Your task to perform on an android device: delete the emails in spam in the gmail app Image 0: 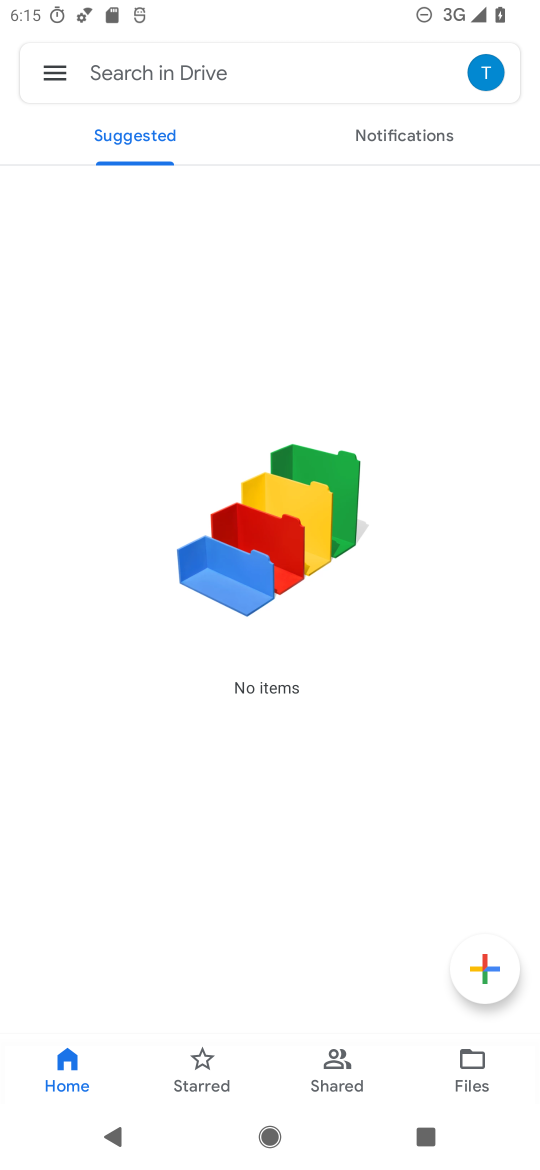
Step 0: press home button
Your task to perform on an android device: delete the emails in spam in the gmail app Image 1: 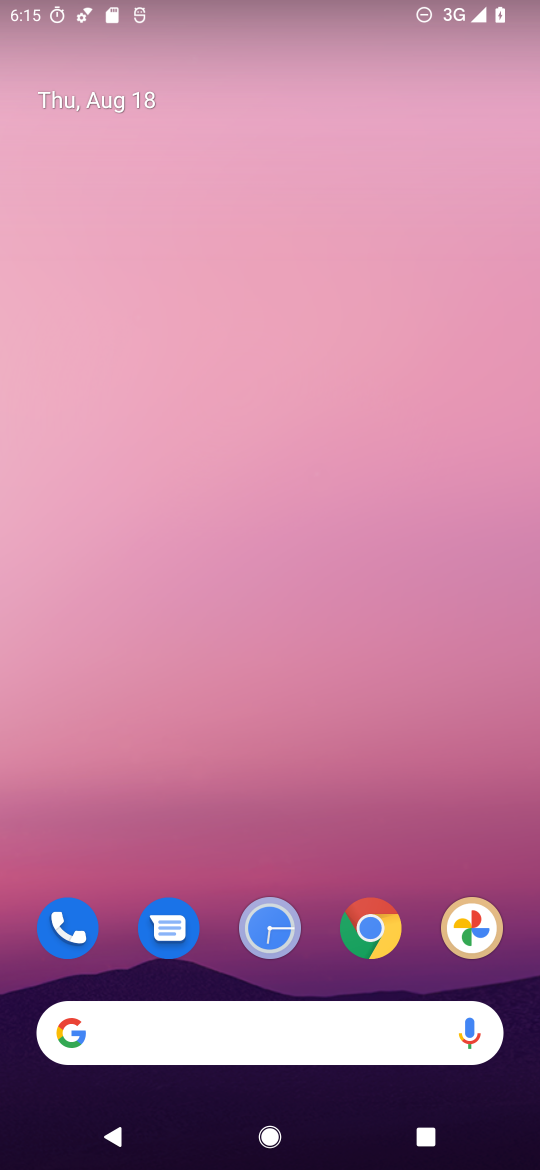
Step 1: drag from (304, 843) to (315, 162)
Your task to perform on an android device: delete the emails in spam in the gmail app Image 2: 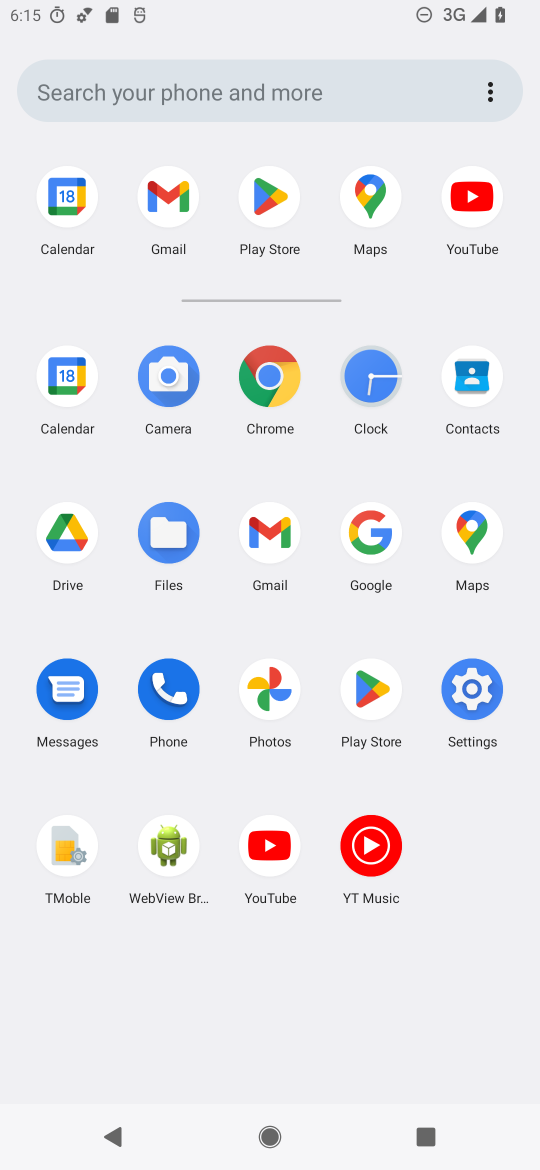
Step 2: click (270, 531)
Your task to perform on an android device: delete the emails in spam in the gmail app Image 3: 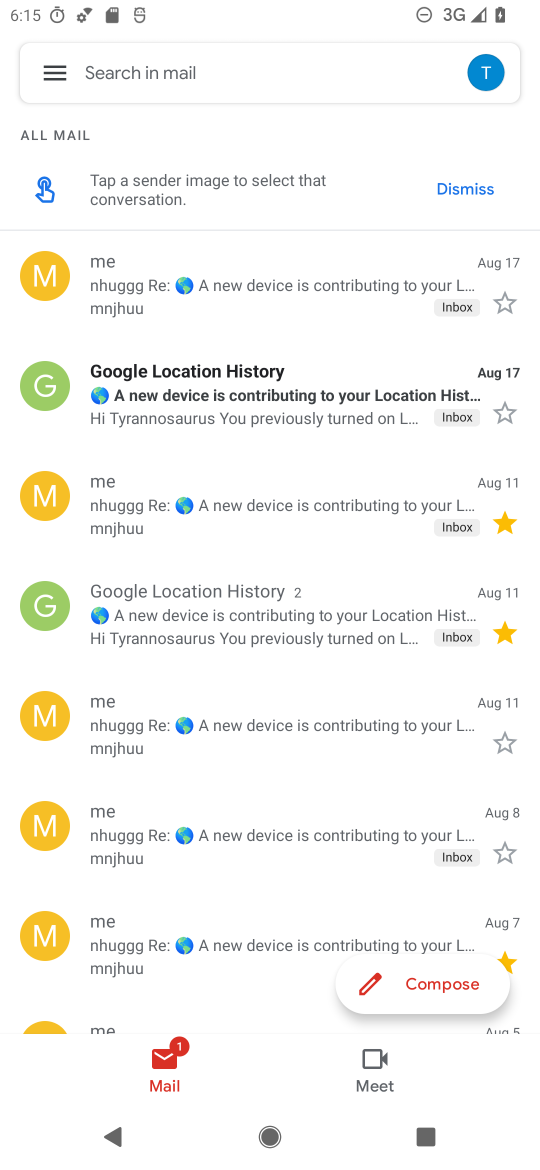
Step 3: click (43, 59)
Your task to perform on an android device: delete the emails in spam in the gmail app Image 4: 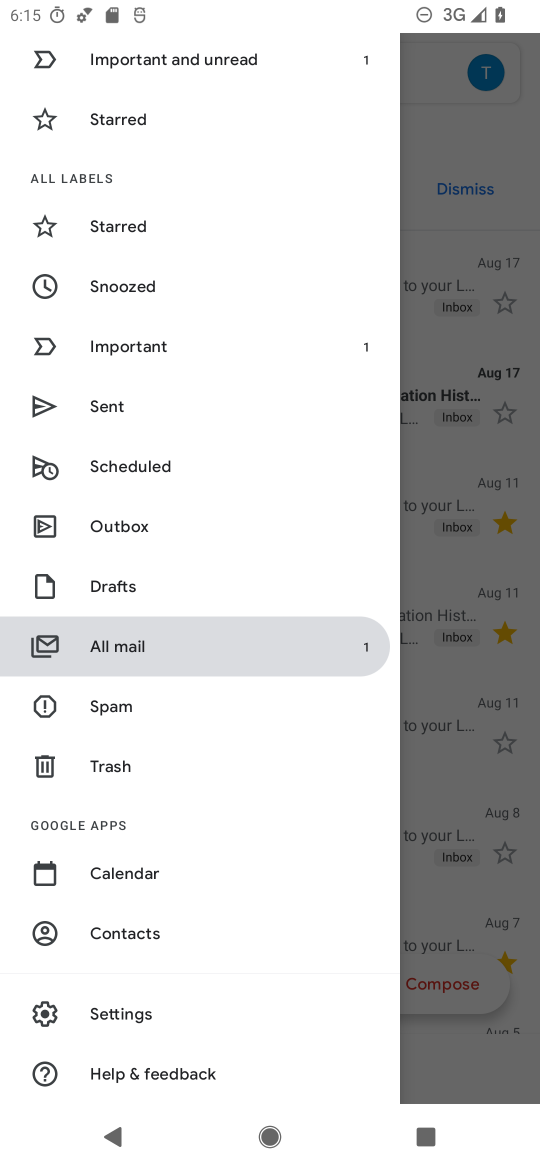
Step 4: click (125, 701)
Your task to perform on an android device: delete the emails in spam in the gmail app Image 5: 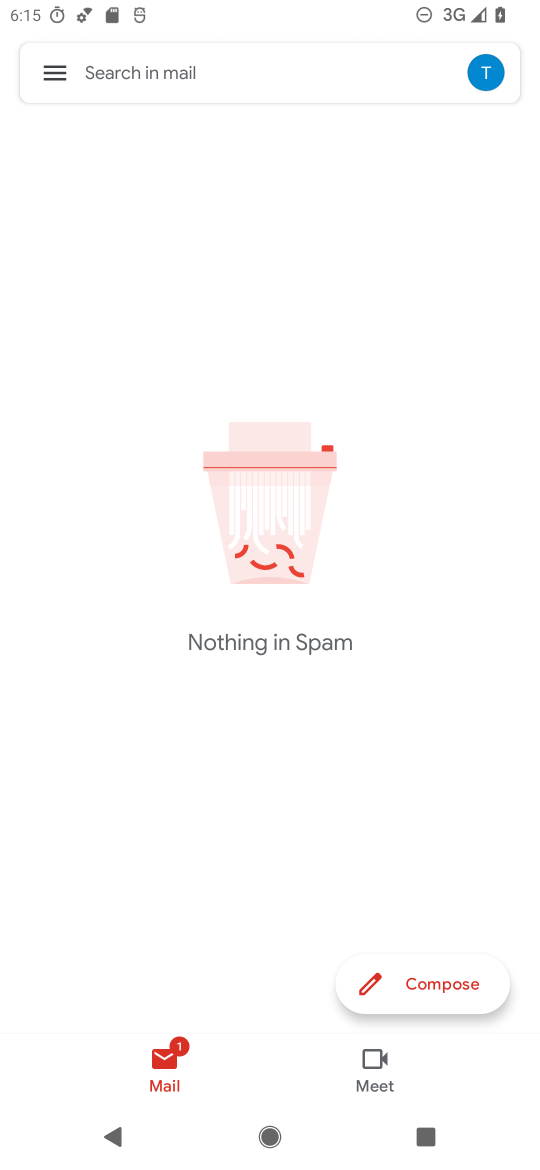
Step 5: task complete